Your task to perform on an android device: visit the assistant section in the google photos Image 0: 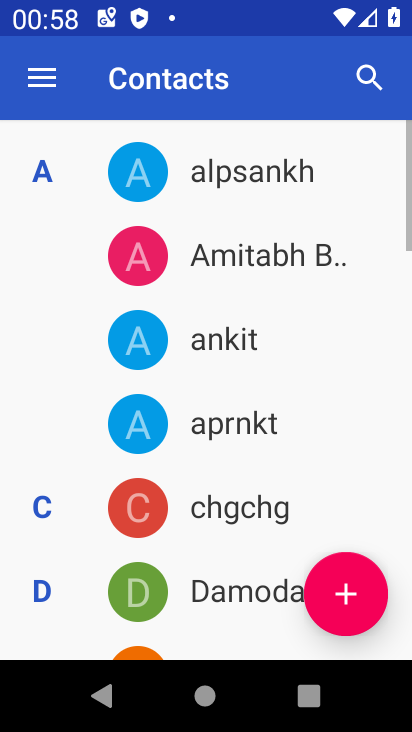
Step 0: press home button
Your task to perform on an android device: visit the assistant section in the google photos Image 1: 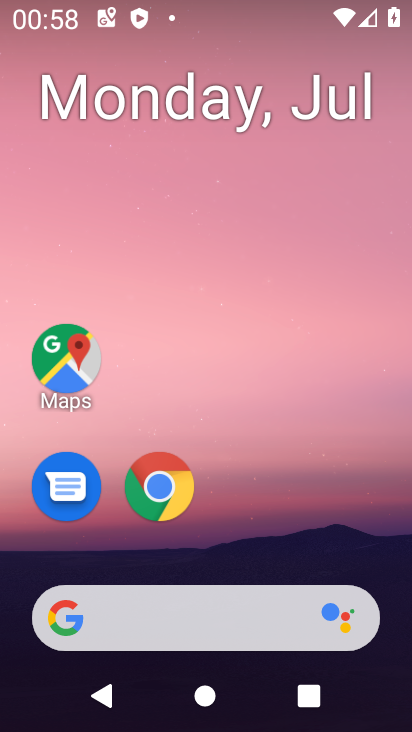
Step 1: drag from (364, 544) to (356, 116)
Your task to perform on an android device: visit the assistant section in the google photos Image 2: 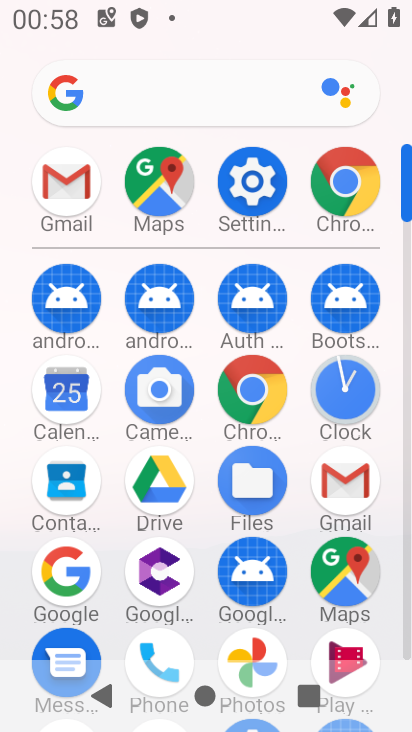
Step 2: drag from (391, 420) to (394, 193)
Your task to perform on an android device: visit the assistant section in the google photos Image 3: 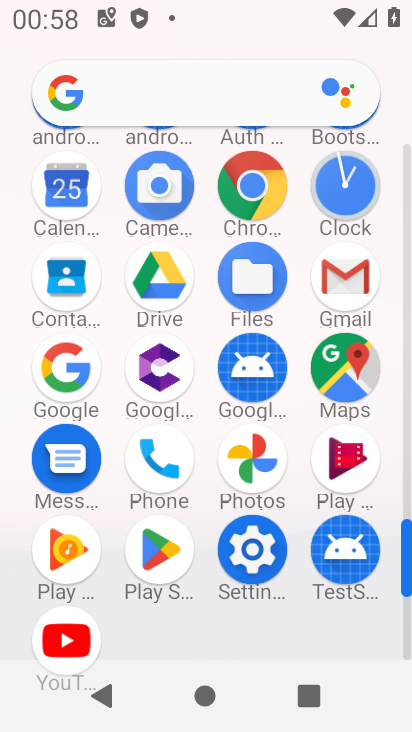
Step 3: click (252, 469)
Your task to perform on an android device: visit the assistant section in the google photos Image 4: 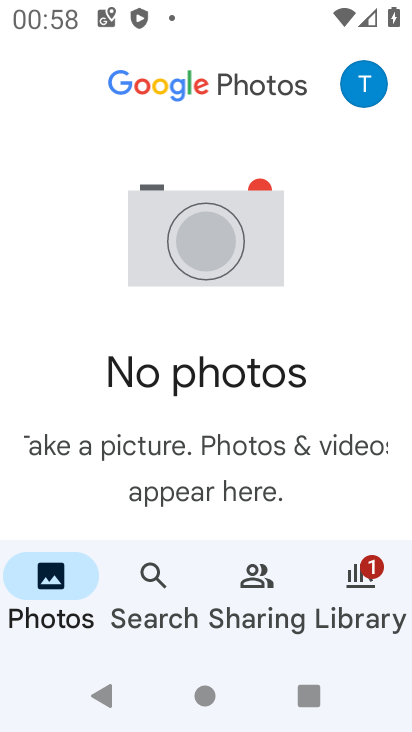
Step 4: click (368, 590)
Your task to perform on an android device: visit the assistant section in the google photos Image 5: 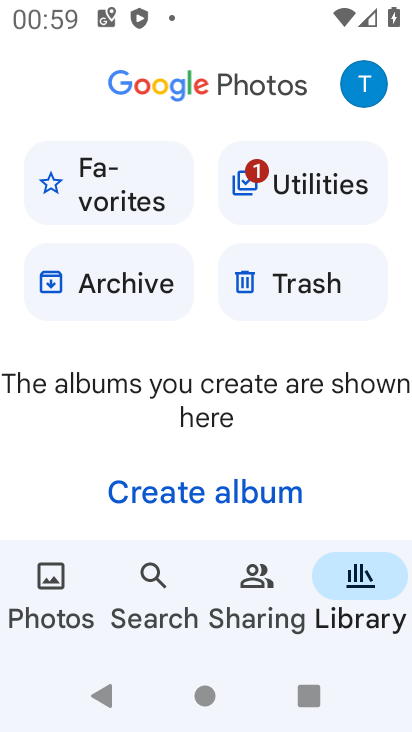
Step 5: task complete